Your task to perform on an android device: find photos in the google photos app Image 0: 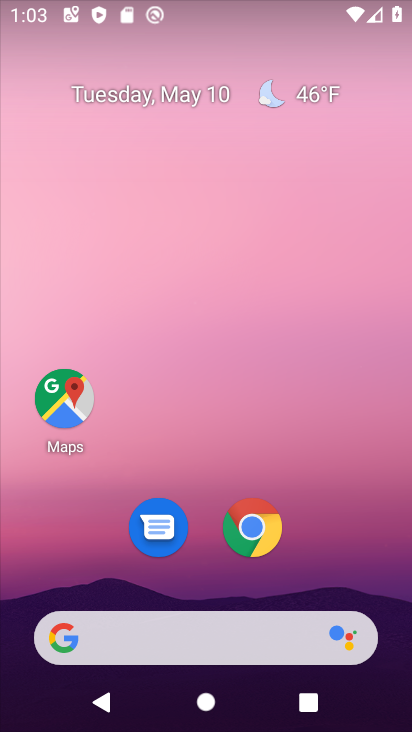
Step 0: drag from (367, 570) to (360, 14)
Your task to perform on an android device: find photos in the google photos app Image 1: 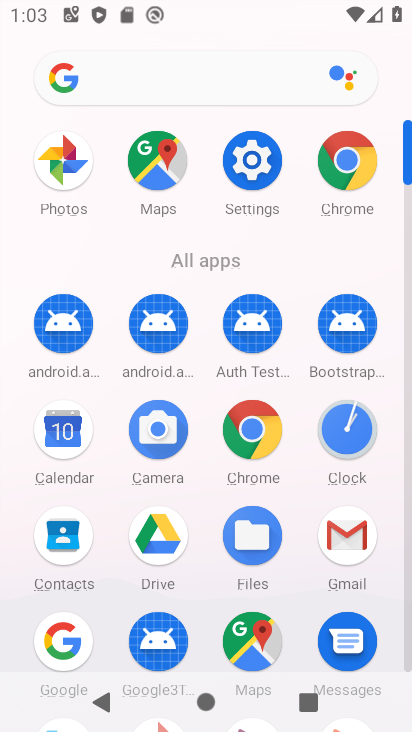
Step 1: click (62, 165)
Your task to perform on an android device: find photos in the google photos app Image 2: 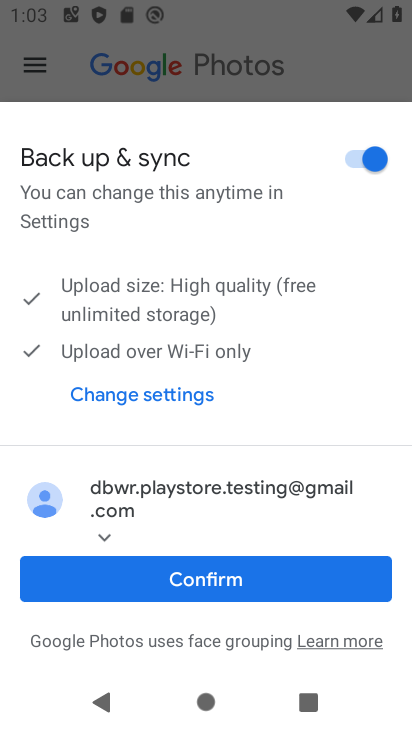
Step 2: click (177, 582)
Your task to perform on an android device: find photos in the google photos app Image 3: 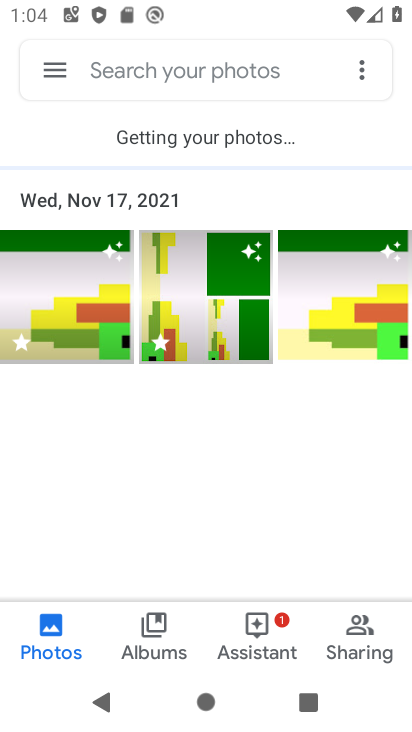
Step 3: task complete